Your task to perform on an android device: Open battery settings Image 0: 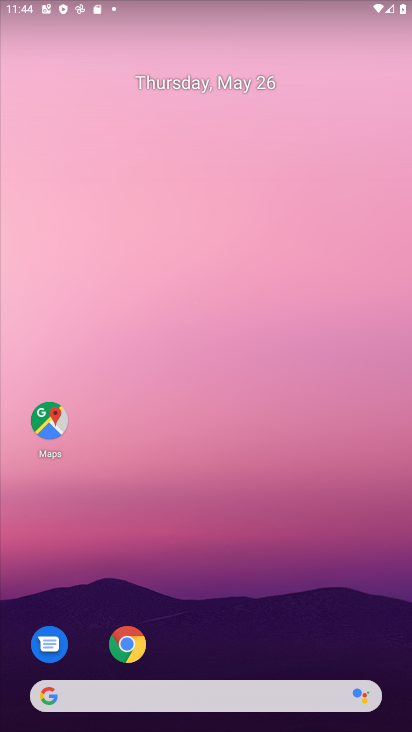
Step 0: drag from (391, 632) to (251, 38)
Your task to perform on an android device: Open battery settings Image 1: 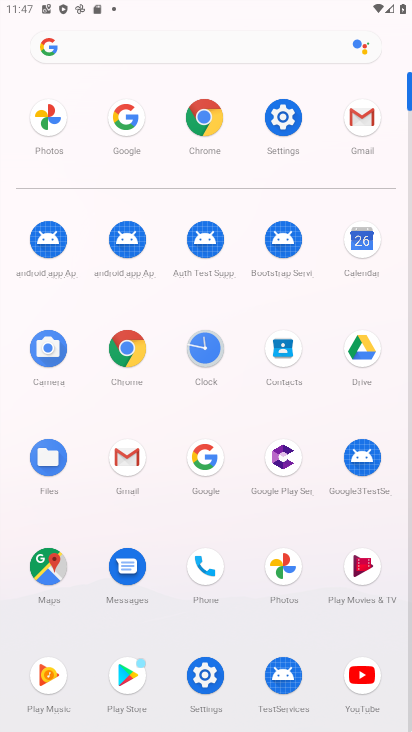
Step 1: click (210, 669)
Your task to perform on an android device: Open battery settings Image 2: 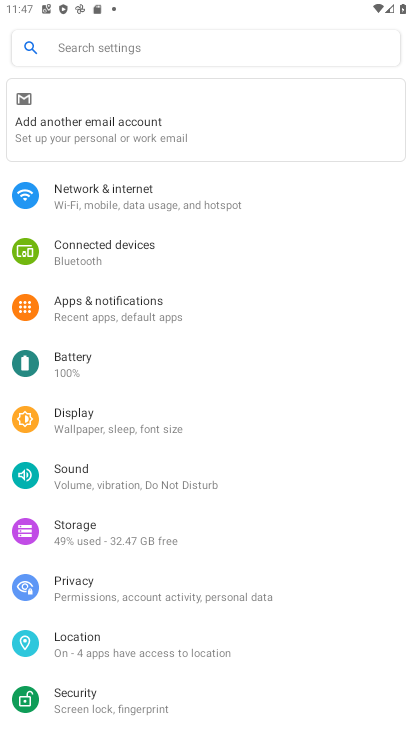
Step 2: click (109, 364)
Your task to perform on an android device: Open battery settings Image 3: 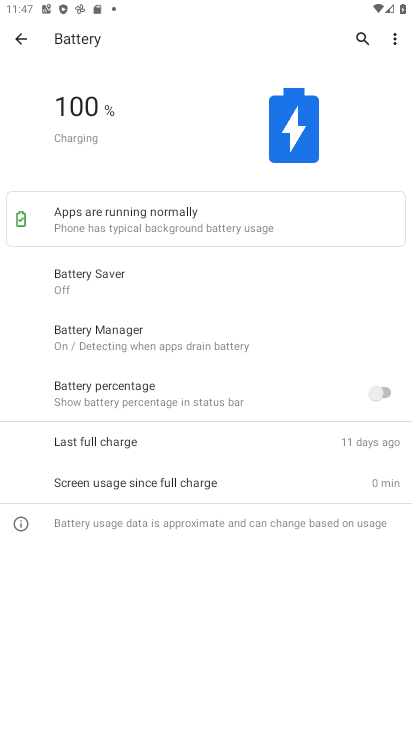
Step 3: task complete